Your task to perform on an android device: manage bookmarks in the chrome app Image 0: 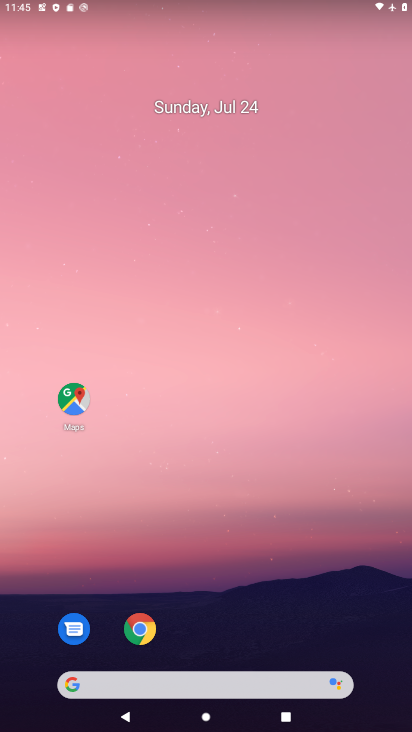
Step 0: click (135, 629)
Your task to perform on an android device: manage bookmarks in the chrome app Image 1: 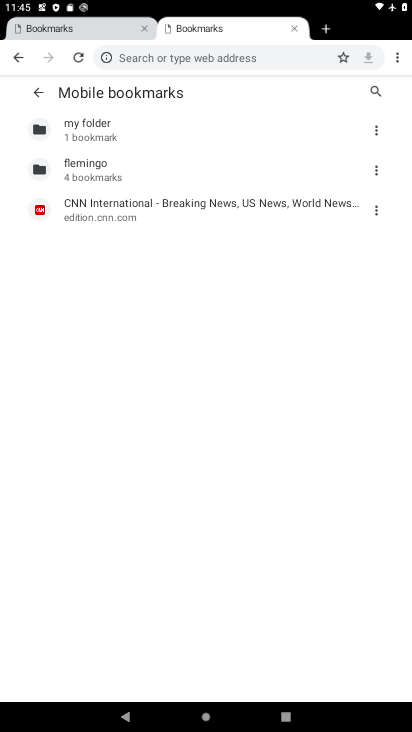
Step 1: click (318, 28)
Your task to perform on an android device: manage bookmarks in the chrome app Image 2: 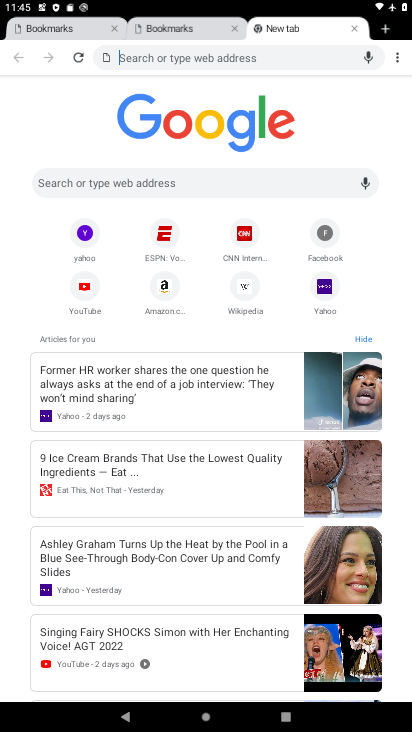
Step 2: click (169, 299)
Your task to perform on an android device: manage bookmarks in the chrome app Image 3: 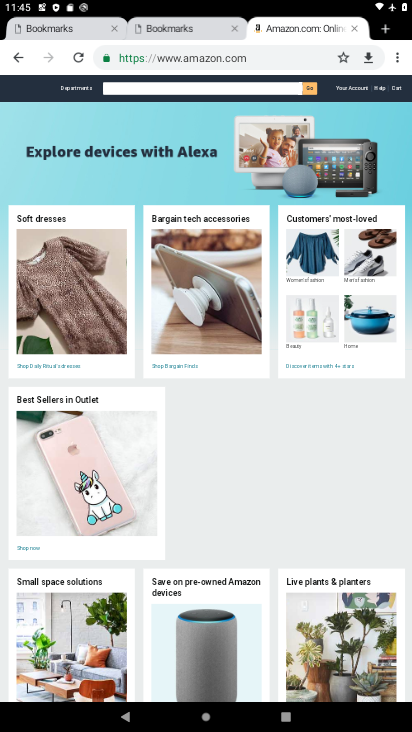
Step 3: click (344, 63)
Your task to perform on an android device: manage bookmarks in the chrome app Image 4: 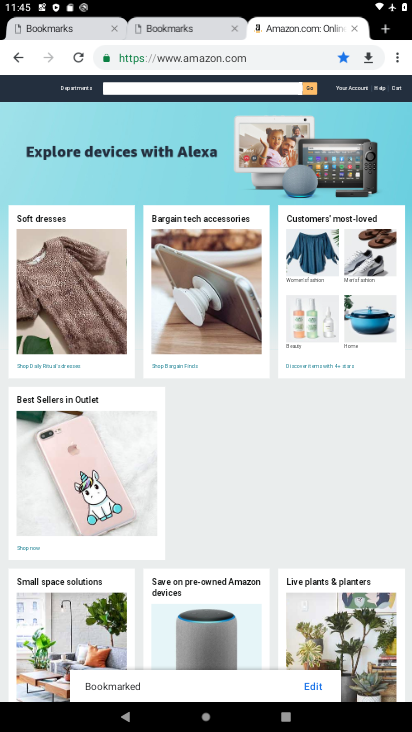
Step 4: task complete